Your task to perform on an android device: Go to Google Image 0: 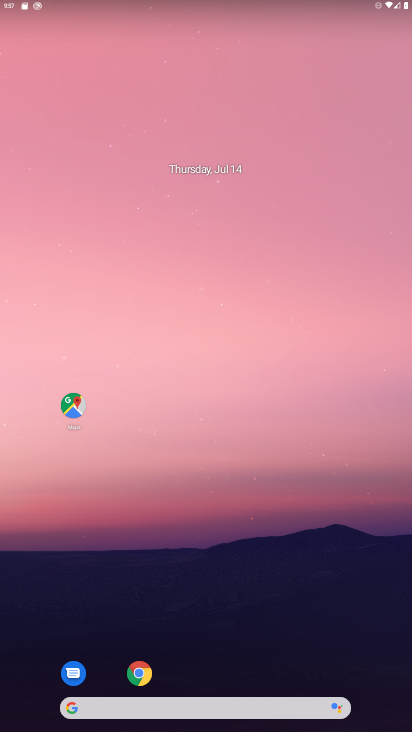
Step 0: click (68, 713)
Your task to perform on an android device: Go to Google Image 1: 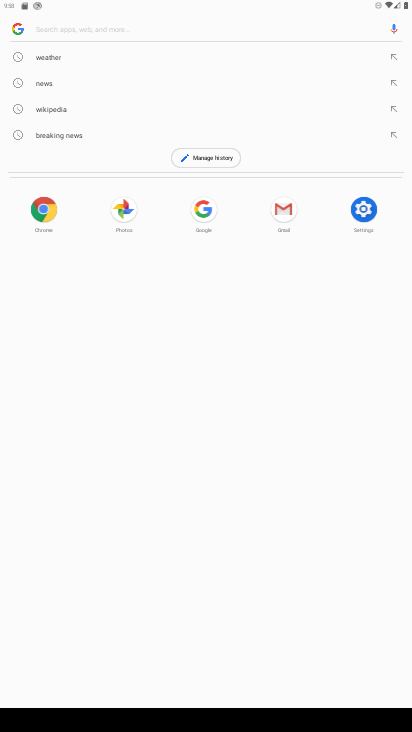
Step 1: click (14, 28)
Your task to perform on an android device: Go to Google Image 2: 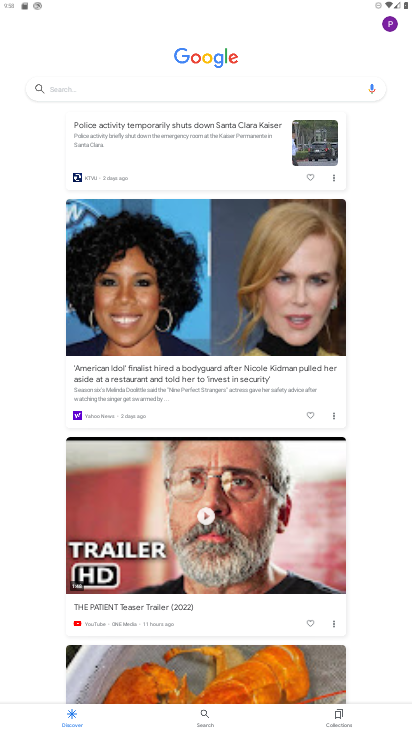
Step 2: task complete